Your task to perform on an android device: Is it going to rain this weekend? Image 0: 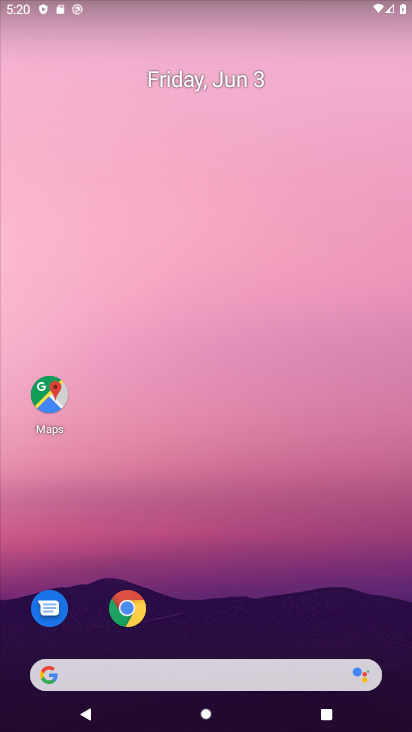
Step 0: click (161, 666)
Your task to perform on an android device: Is it going to rain this weekend? Image 1: 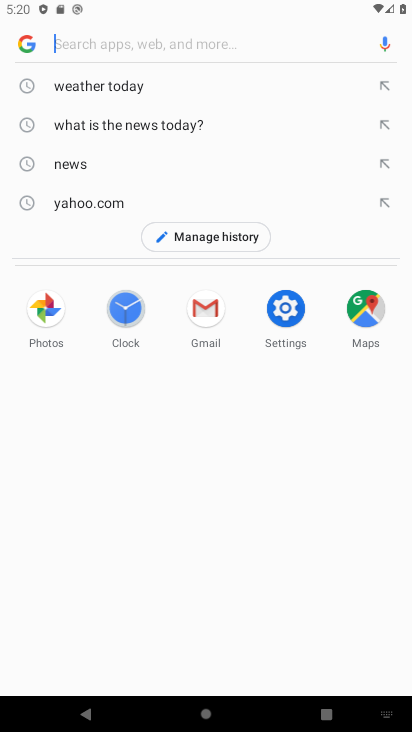
Step 1: type "weather"
Your task to perform on an android device: Is it going to rain this weekend? Image 2: 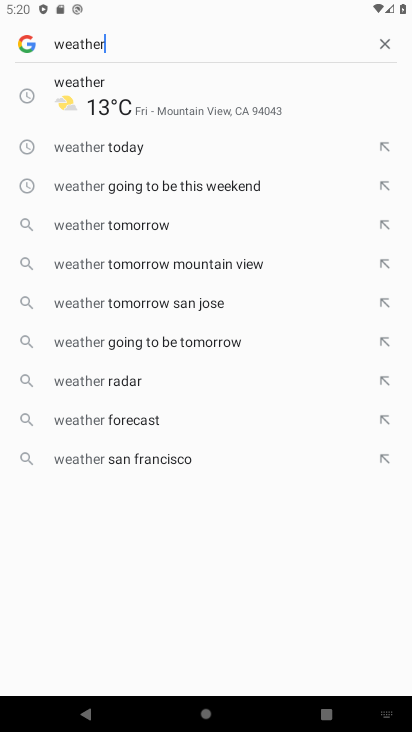
Step 2: click (119, 74)
Your task to perform on an android device: Is it going to rain this weekend? Image 3: 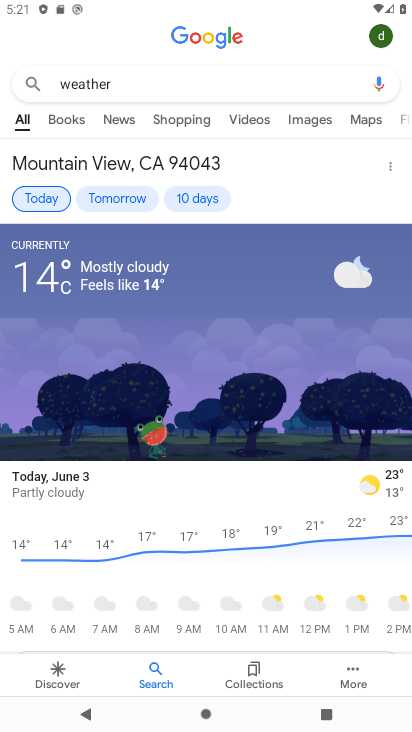
Step 3: click (208, 198)
Your task to perform on an android device: Is it going to rain this weekend? Image 4: 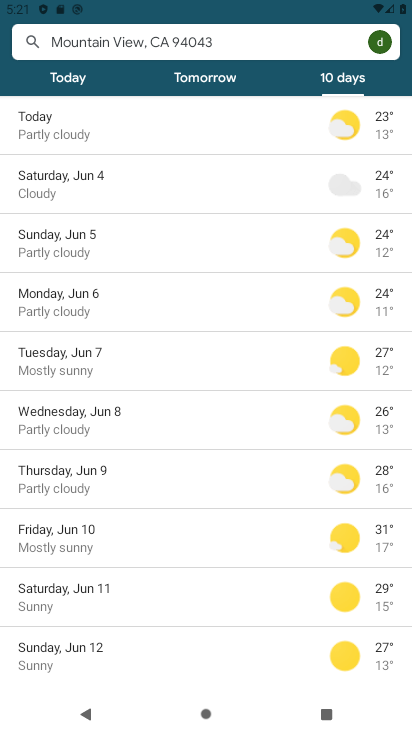
Step 4: task complete